Your task to perform on an android device: choose inbox layout in the gmail app Image 0: 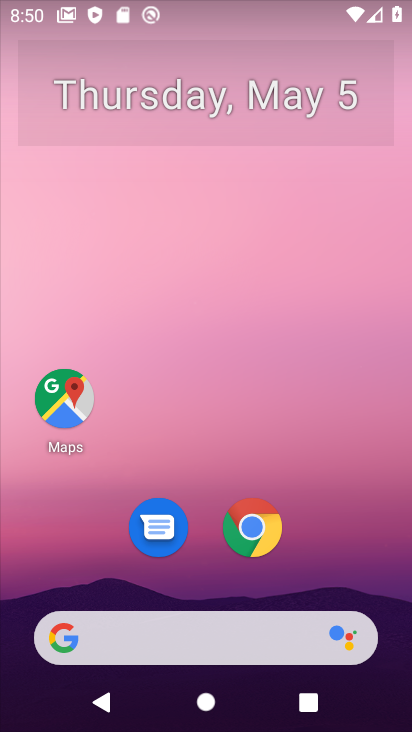
Step 0: drag from (359, 546) to (327, 0)
Your task to perform on an android device: choose inbox layout in the gmail app Image 1: 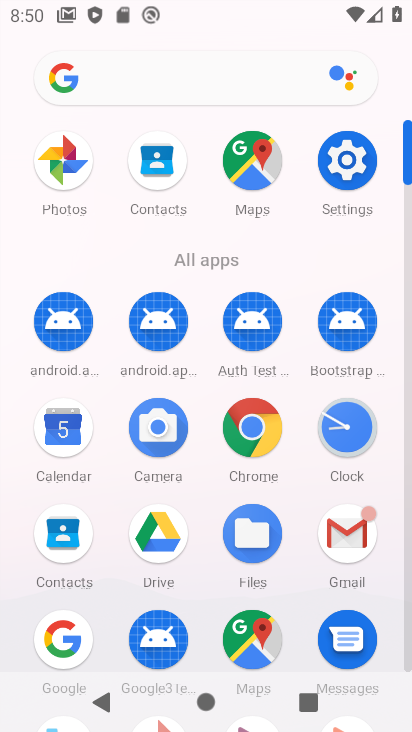
Step 1: click (345, 536)
Your task to perform on an android device: choose inbox layout in the gmail app Image 2: 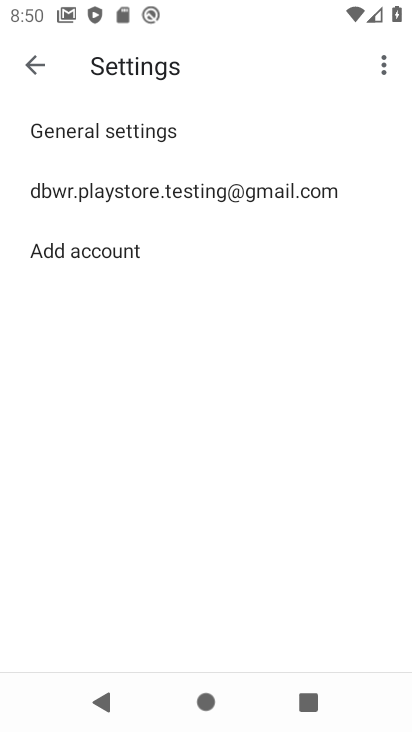
Step 2: click (219, 123)
Your task to perform on an android device: choose inbox layout in the gmail app Image 3: 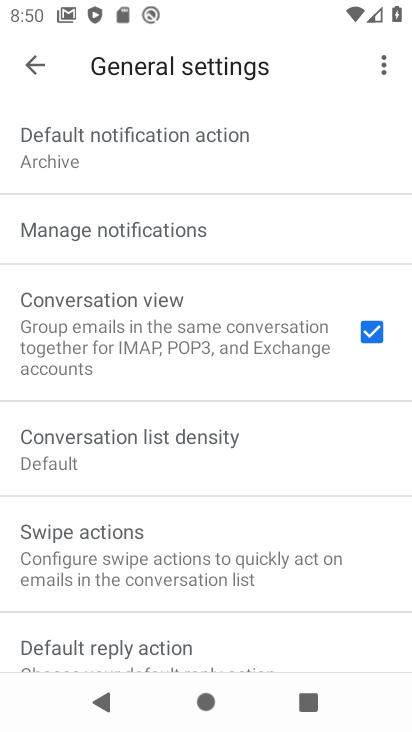
Step 3: click (46, 57)
Your task to perform on an android device: choose inbox layout in the gmail app Image 4: 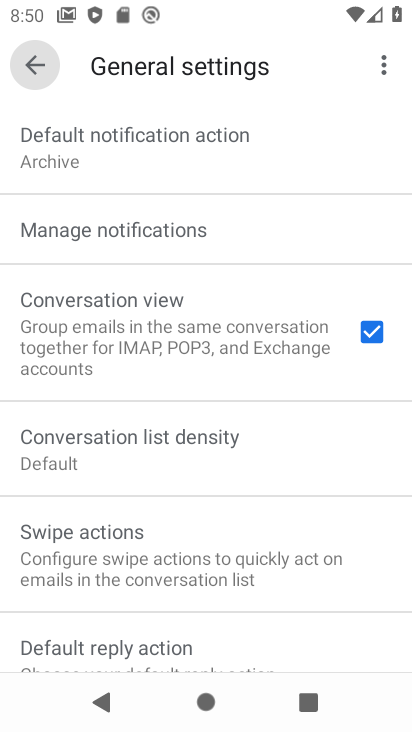
Step 4: click (46, 57)
Your task to perform on an android device: choose inbox layout in the gmail app Image 5: 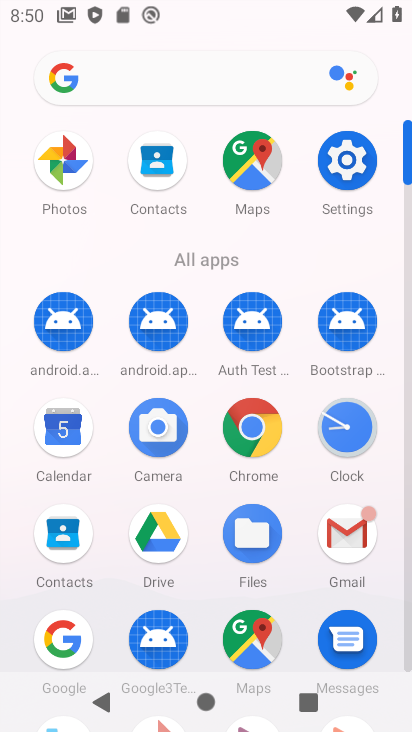
Step 5: click (342, 524)
Your task to perform on an android device: choose inbox layout in the gmail app Image 6: 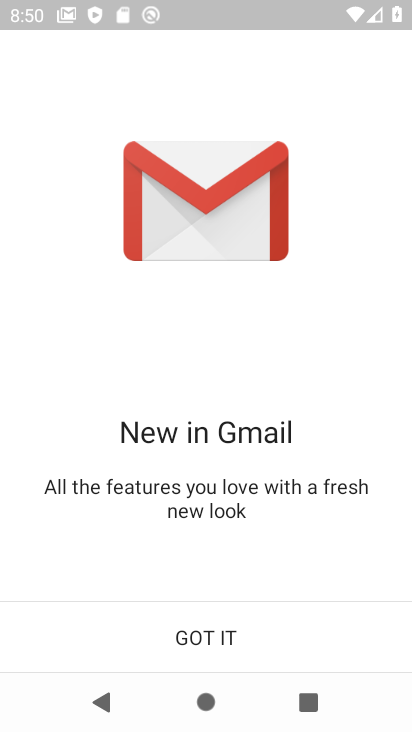
Step 6: click (201, 650)
Your task to perform on an android device: choose inbox layout in the gmail app Image 7: 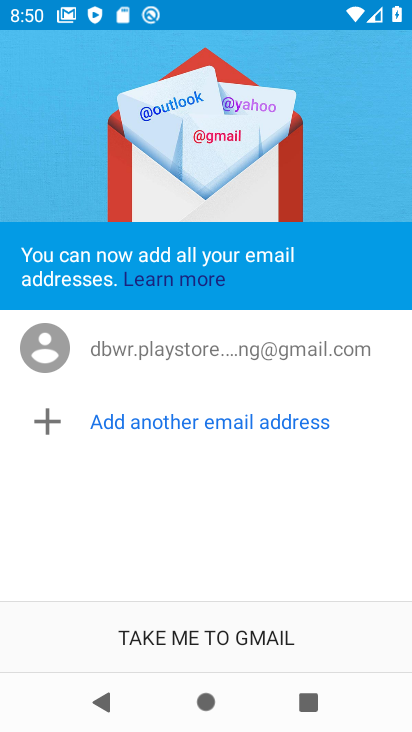
Step 7: click (199, 644)
Your task to perform on an android device: choose inbox layout in the gmail app Image 8: 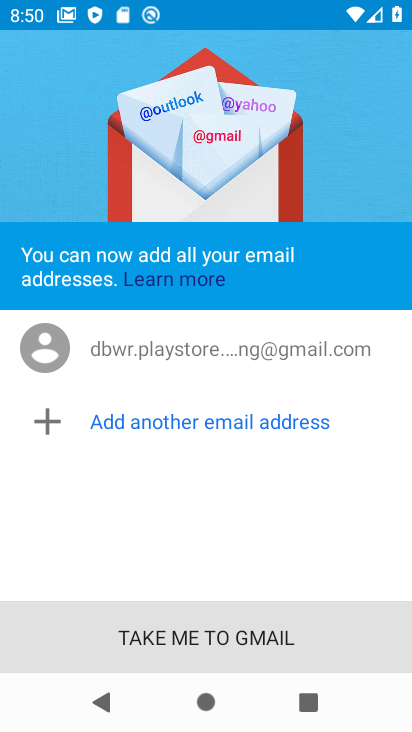
Step 8: click (199, 644)
Your task to perform on an android device: choose inbox layout in the gmail app Image 9: 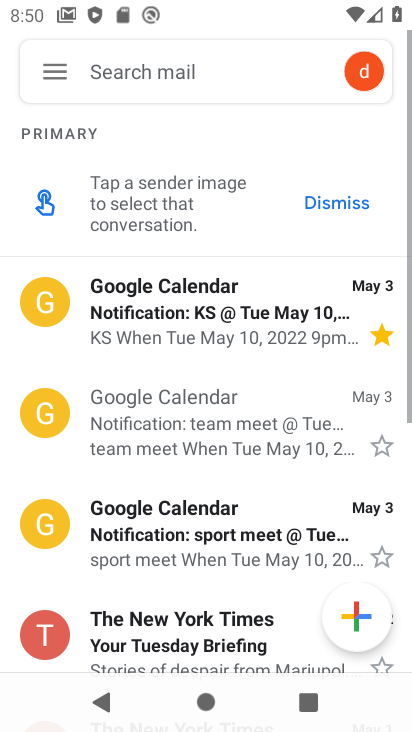
Step 9: click (60, 81)
Your task to perform on an android device: choose inbox layout in the gmail app Image 10: 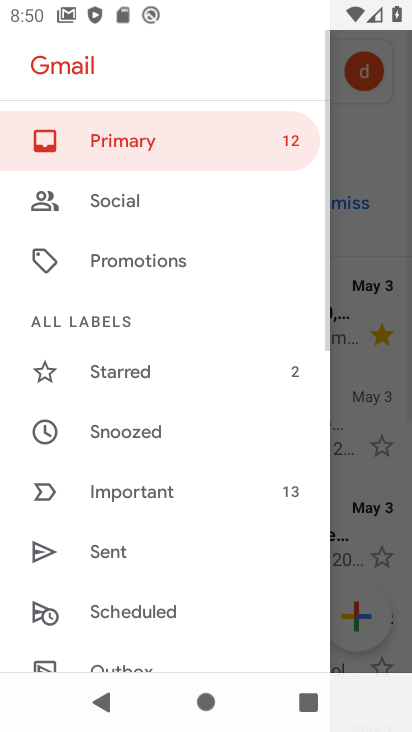
Step 10: drag from (224, 532) to (267, 264)
Your task to perform on an android device: choose inbox layout in the gmail app Image 11: 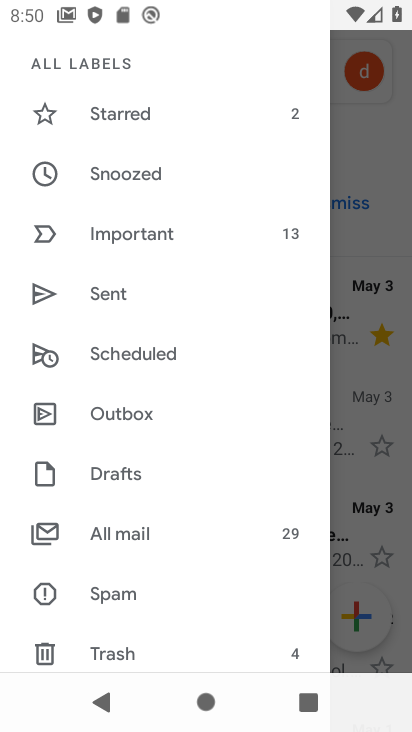
Step 11: drag from (230, 546) to (224, 379)
Your task to perform on an android device: choose inbox layout in the gmail app Image 12: 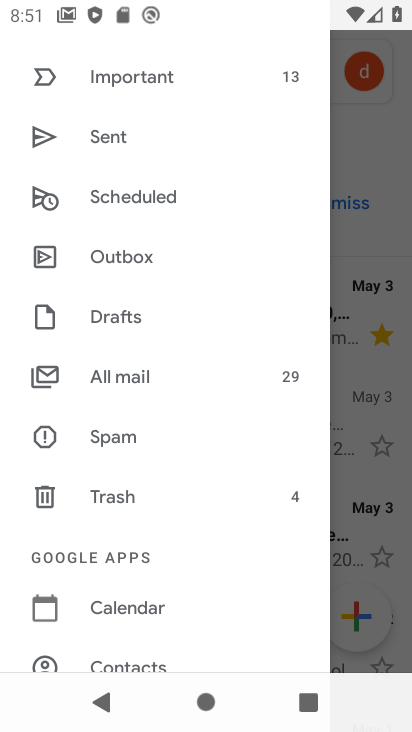
Step 12: drag from (283, 581) to (154, 163)
Your task to perform on an android device: choose inbox layout in the gmail app Image 13: 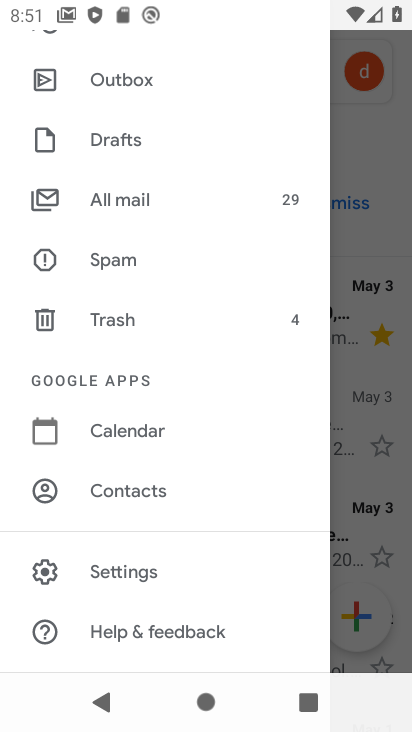
Step 13: click (121, 583)
Your task to perform on an android device: choose inbox layout in the gmail app Image 14: 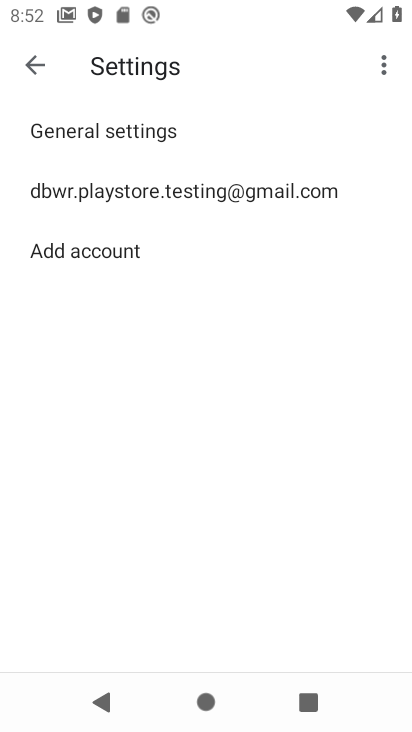
Step 14: click (80, 213)
Your task to perform on an android device: choose inbox layout in the gmail app Image 15: 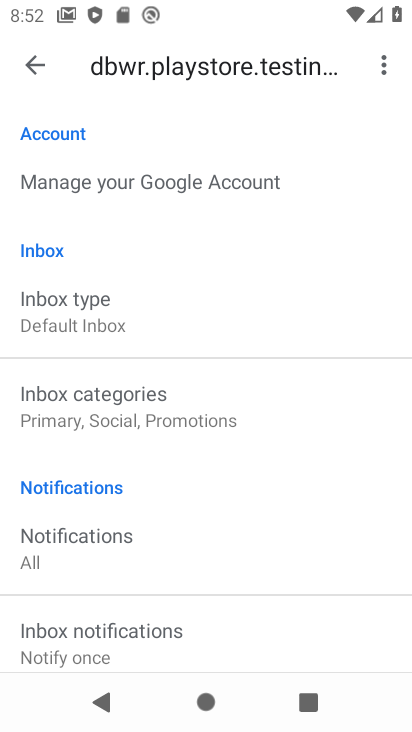
Step 15: click (146, 313)
Your task to perform on an android device: choose inbox layout in the gmail app Image 16: 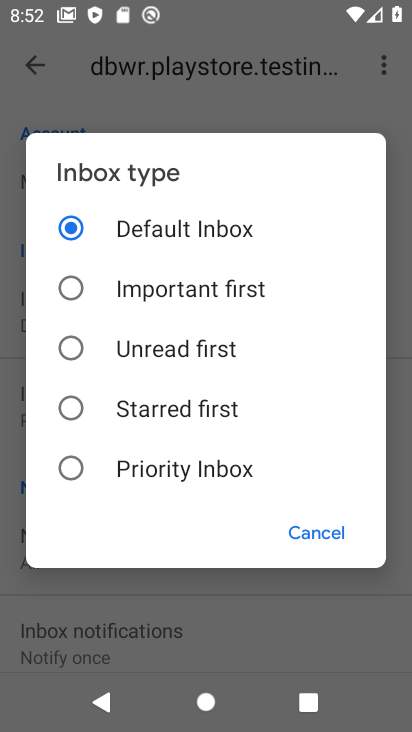
Step 16: click (165, 468)
Your task to perform on an android device: choose inbox layout in the gmail app Image 17: 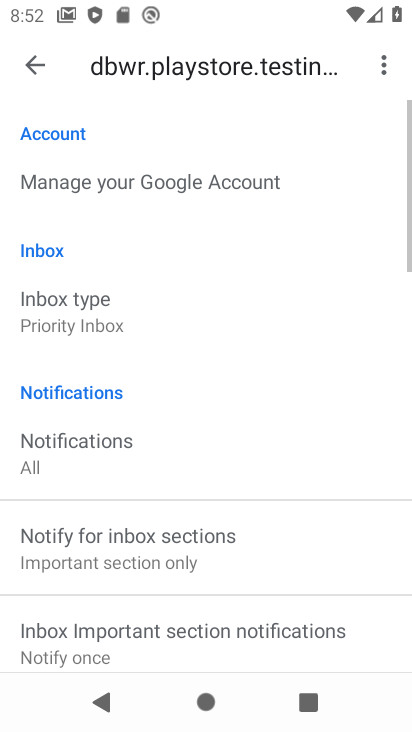
Step 17: task complete